Your task to perform on an android device: Open ESPN.com Image 0: 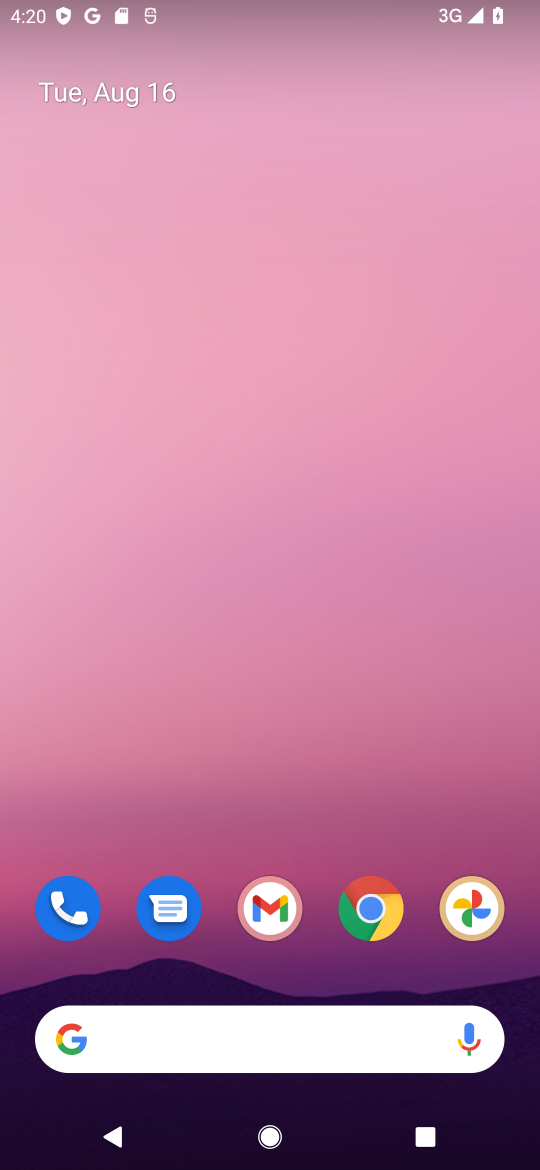
Step 0: click (372, 900)
Your task to perform on an android device: Open ESPN.com Image 1: 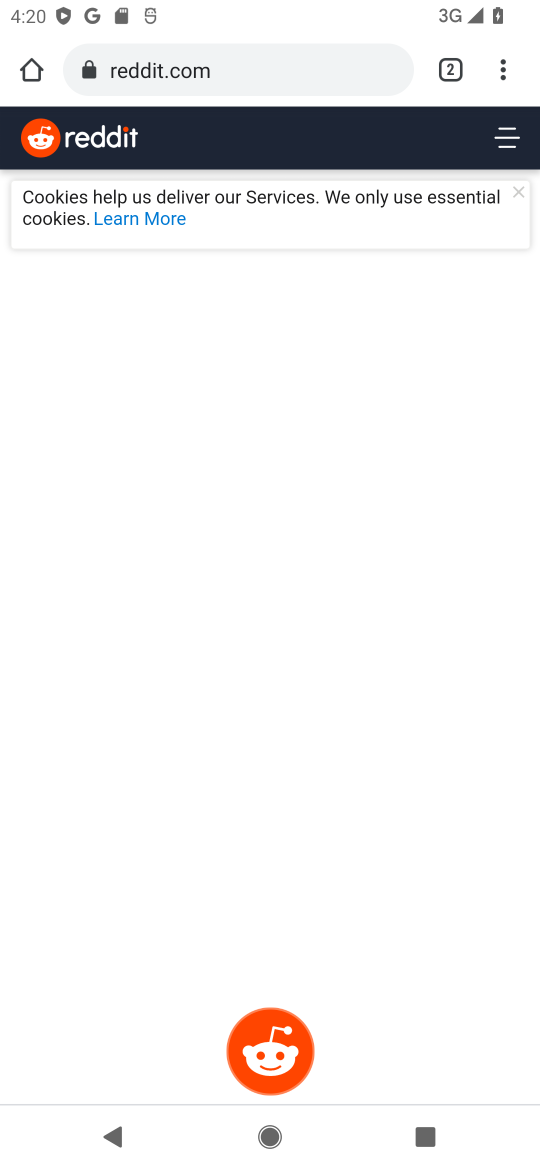
Step 1: click (450, 75)
Your task to perform on an android device: Open ESPN.com Image 2: 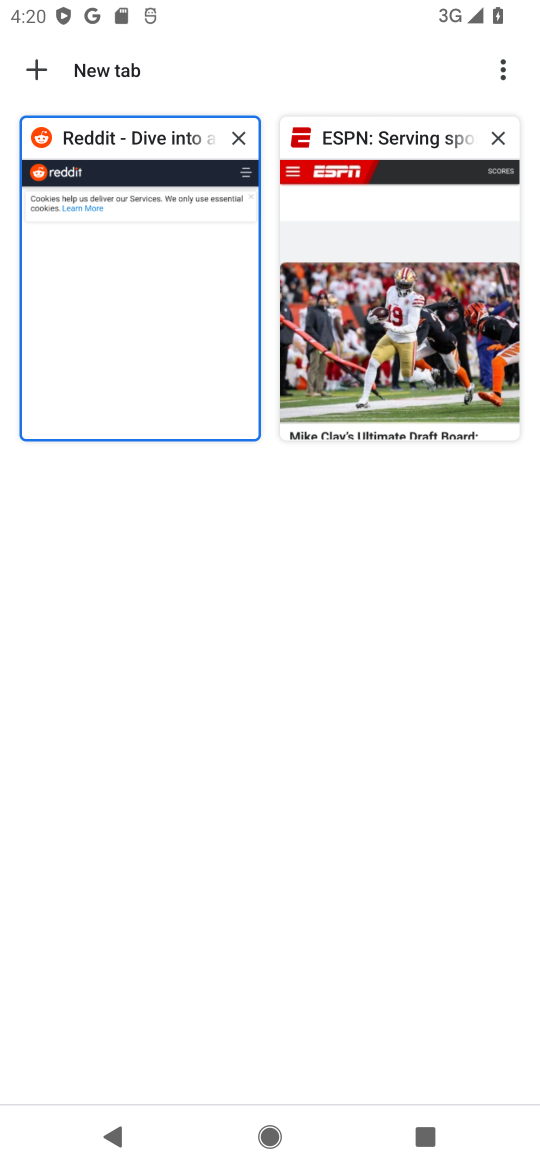
Step 2: click (370, 168)
Your task to perform on an android device: Open ESPN.com Image 3: 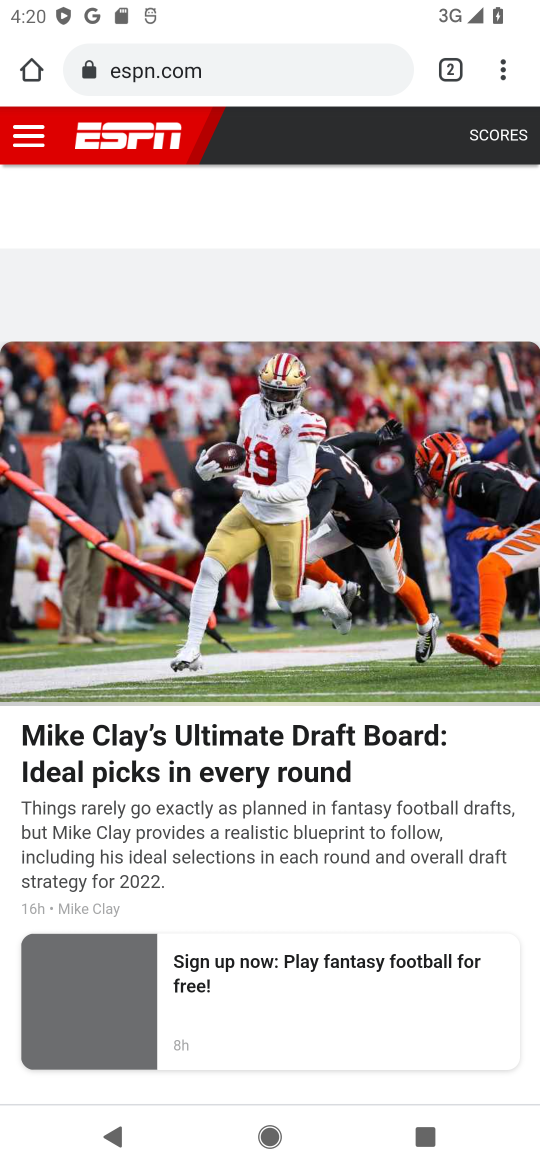
Step 3: task complete